Your task to perform on an android device: Open the calendar app, open the side menu, and click the "Day" option Image 0: 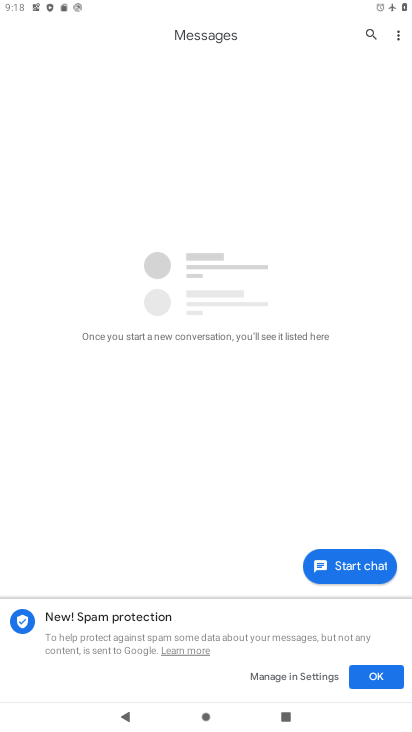
Step 0: press home button
Your task to perform on an android device: Open the calendar app, open the side menu, and click the "Day" option Image 1: 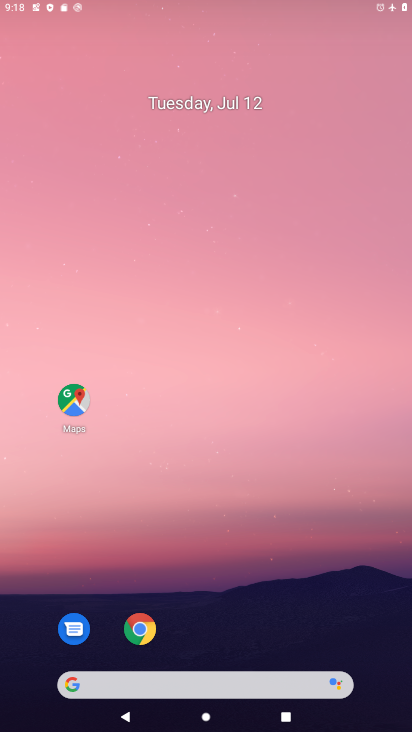
Step 1: drag from (202, 648) to (212, 220)
Your task to perform on an android device: Open the calendar app, open the side menu, and click the "Day" option Image 2: 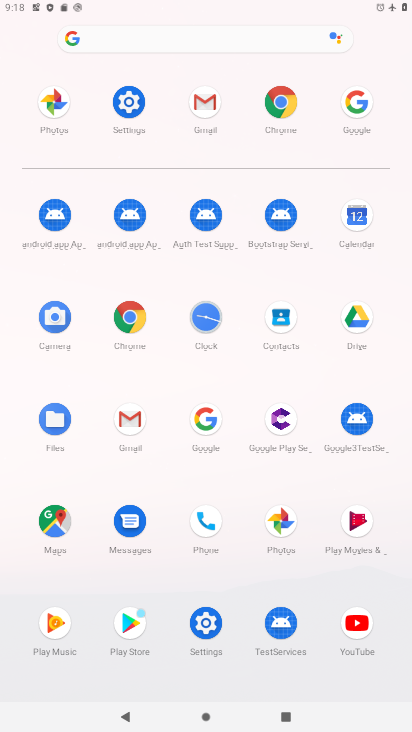
Step 2: click (355, 205)
Your task to perform on an android device: Open the calendar app, open the side menu, and click the "Day" option Image 3: 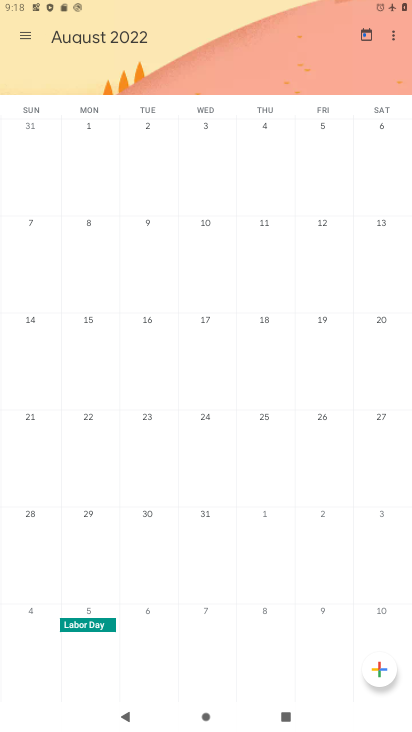
Step 3: drag from (38, 252) to (370, 327)
Your task to perform on an android device: Open the calendar app, open the side menu, and click the "Day" option Image 4: 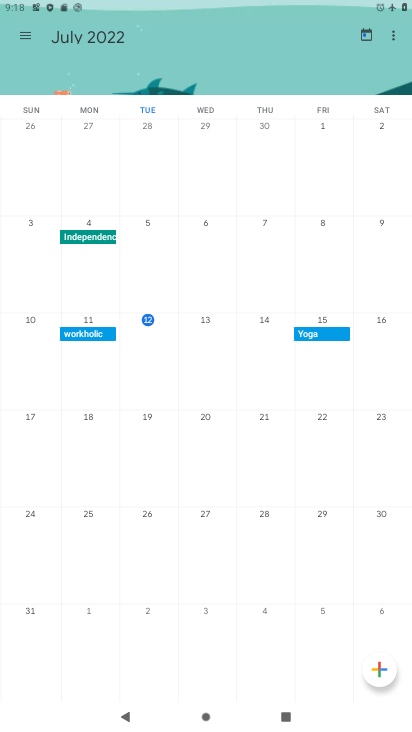
Step 4: click (29, 34)
Your task to perform on an android device: Open the calendar app, open the side menu, and click the "Day" option Image 5: 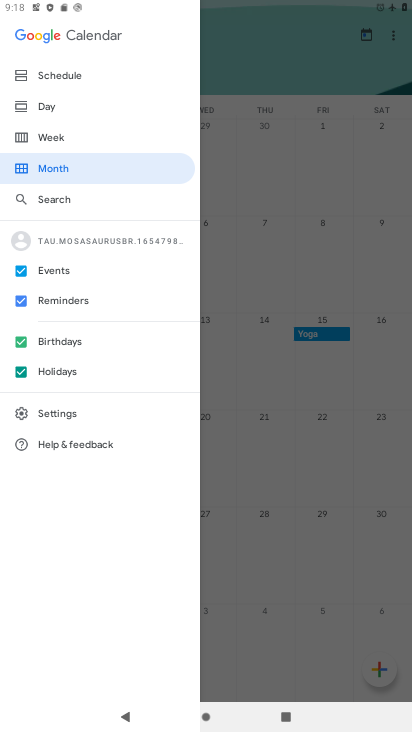
Step 5: click (55, 96)
Your task to perform on an android device: Open the calendar app, open the side menu, and click the "Day" option Image 6: 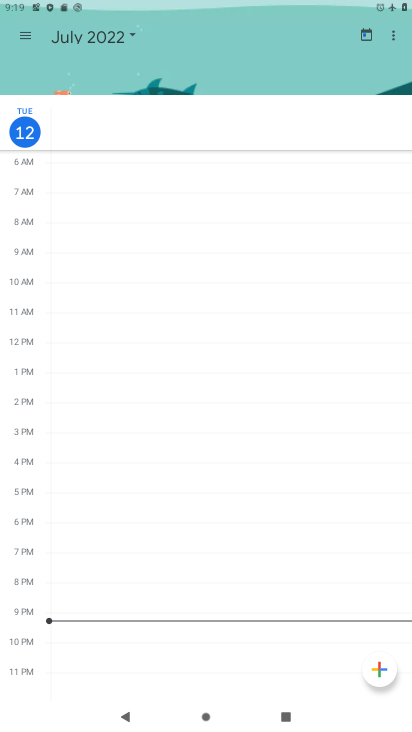
Step 6: click (20, 34)
Your task to perform on an android device: Open the calendar app, open the side menu, and click the "Day" option Image 7: 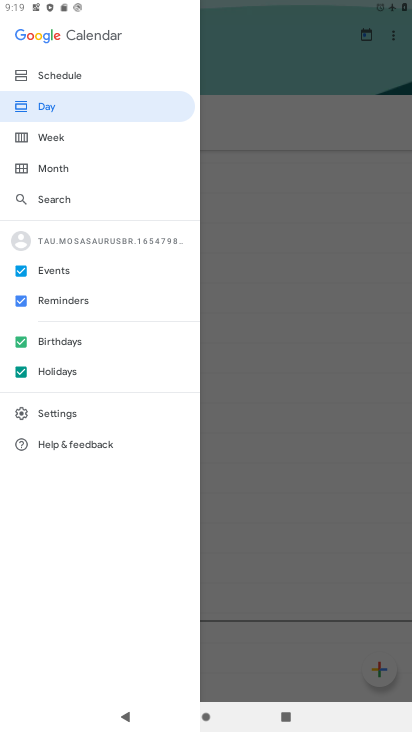
Step 7: task complete